Your task to perform on an android device: turn off airplane mode Image 0: 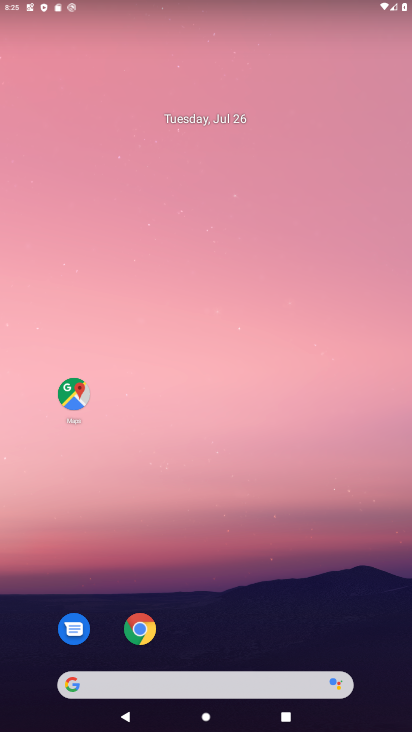
Step 0: drag from (354, 9) to (382, 512)
Your task to perform on an android device: turn off airplane mode Image 1: 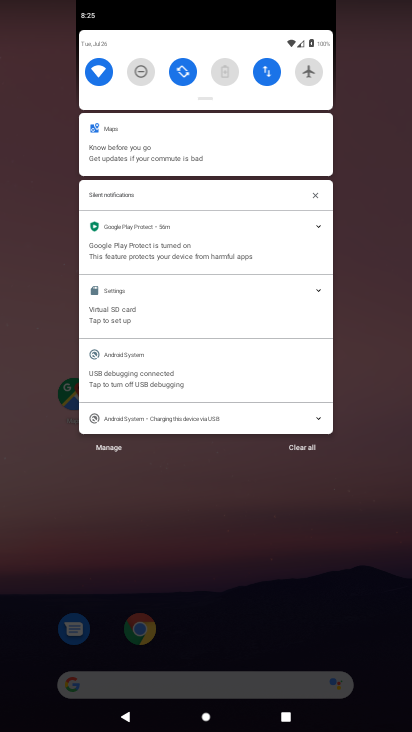
Step 1: task complete